Your task to perform on an android device: open a new tab in the chrome app Image 0: 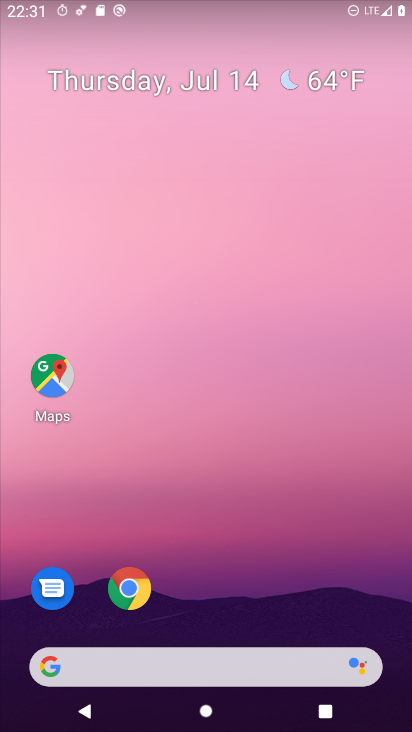
Step 0: drag from (344, 589) to (367, 199)
Your task to perform on an android device: open a new tab in the chrome app Image 1: 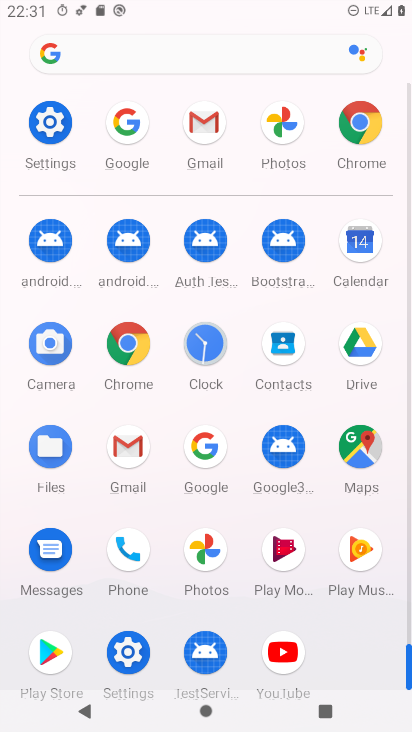
Step 1: click (357, 125)
Your task to perform on an android device: open a new tab in the chrome app Image 2: 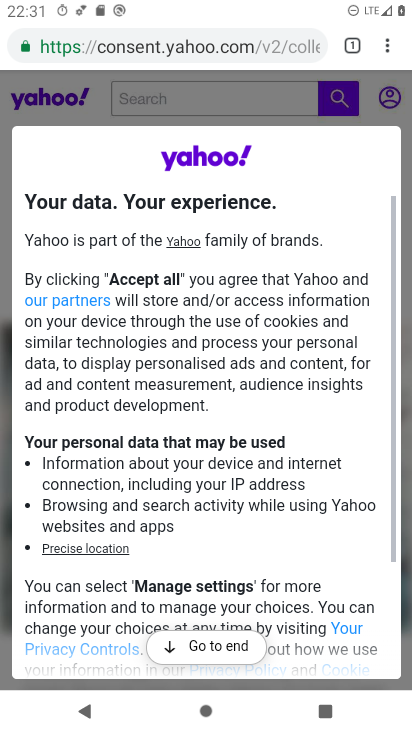
Step 2: click (388, 44)
Your task to perform on an android device: open a new tab in the chrome app Image 3: 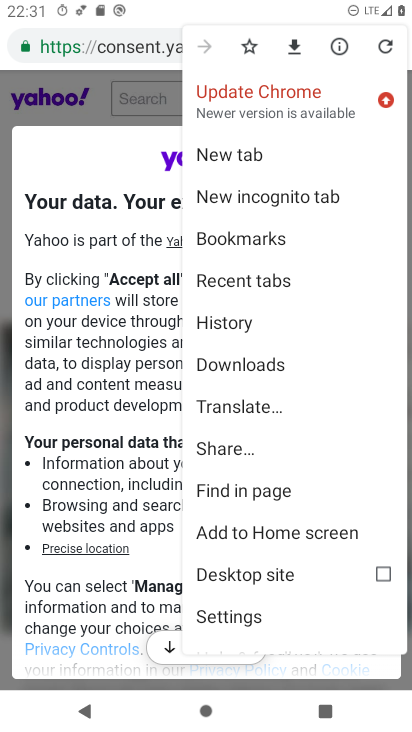
Step 3: click (281, 162)
Your task to perform on an android device: open a new tab in the chrome app Image 4: 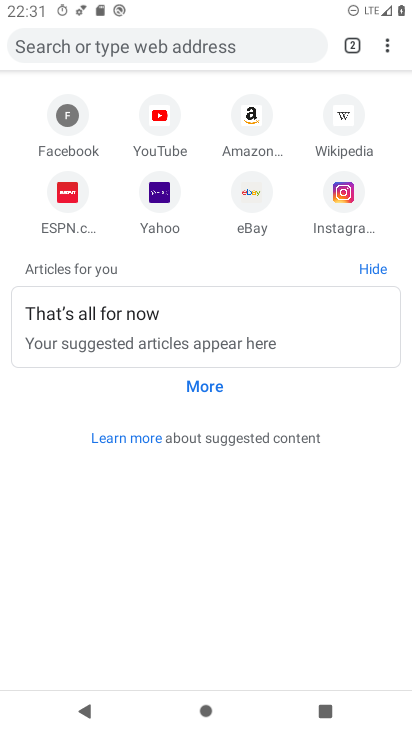
Step 4: task complete